Your task to perform on an android device: Search for Italian restaurants on Maps Image 0: 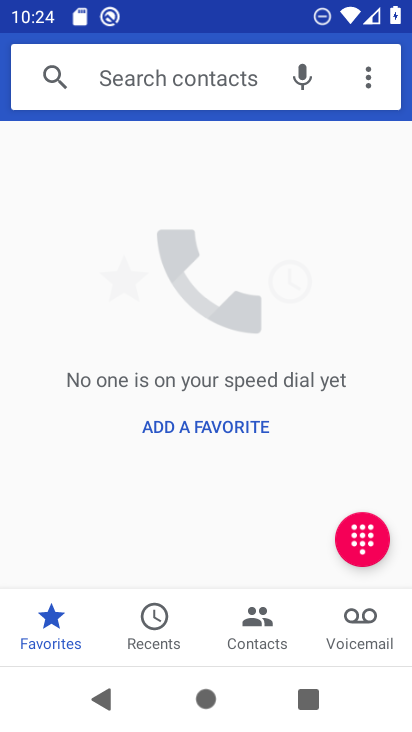
Step 0: drag from (325, 531) to (287, 80)
Your task to perform on an android device: Search for Italian restaurants on Maps Image 1: 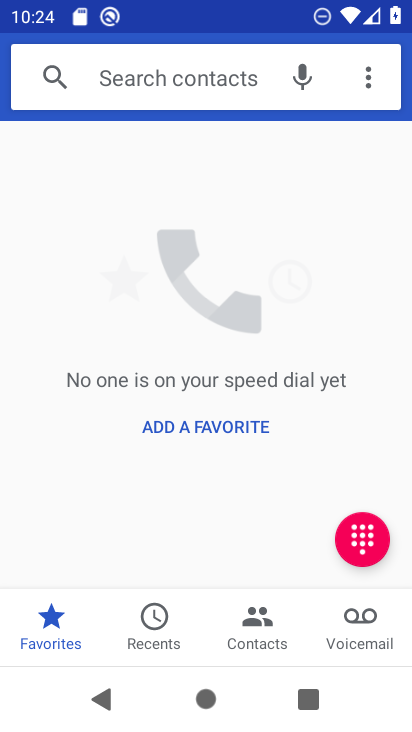
Step 1: press home button
Your task to perform on an android device: Search for Italian restaurants on Maps Image 2: 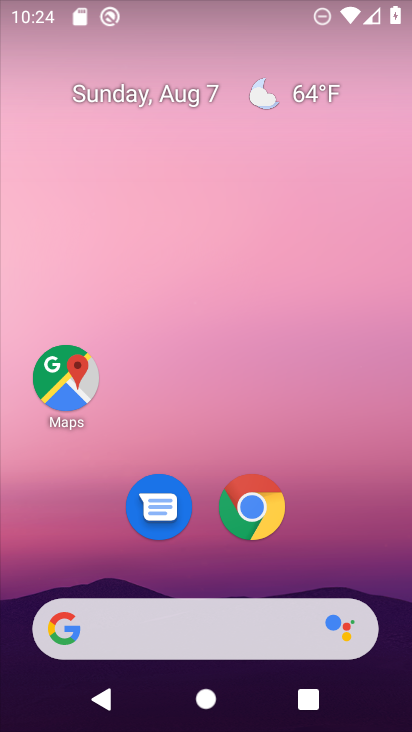
Step 2: drag from (357, 531) to (311, 29)
Your task to perform on an android device: Search for Italian restaurants on Maps Image 3: 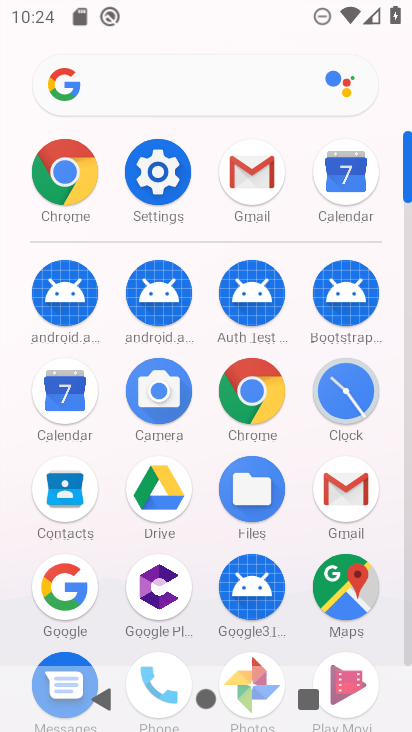
Step 3: click (344, 586)
Your task to perform on an android device: Search for Italian restaurants on Maps Image 4: 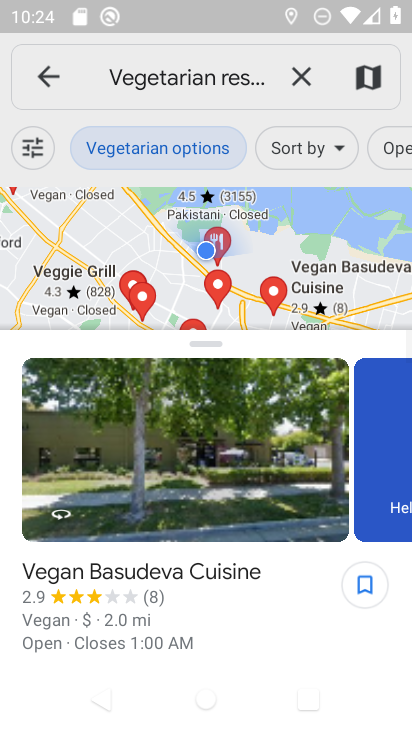
Step 4: drag from (378, 534) to (409, 514)
Your task to perform on an android device: Search for Italian restaurants on Maps Image 5: 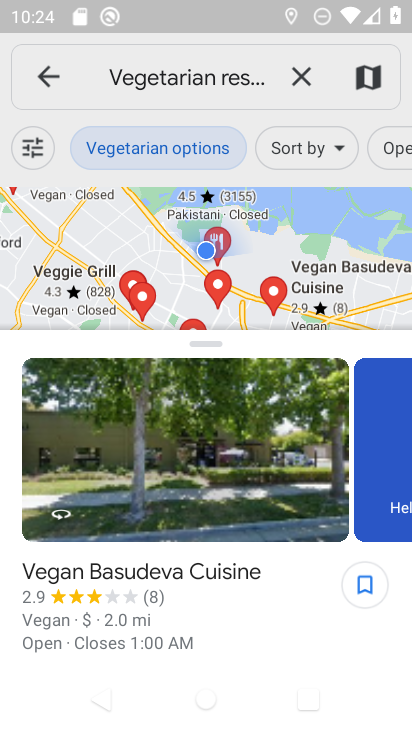
Step 5: drag from (409, 512) to (65, 455)
Your task to perform on an android device: Search for Italian restaurants on Maps Image 6: 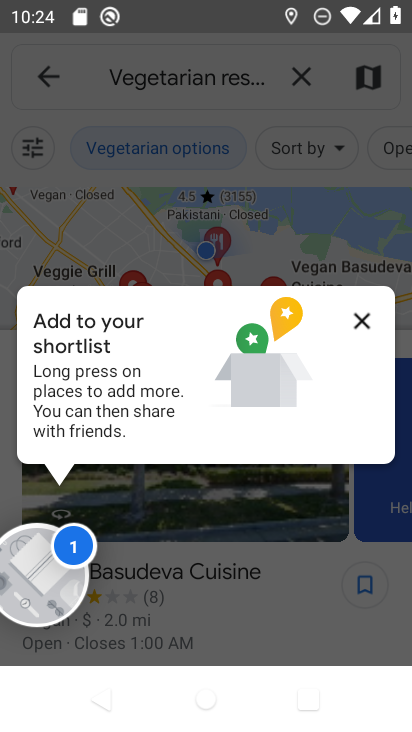
Step 6: click (360, 316)
Your task to perform on an android device: Search for Italian restaurants on Maps Image 7: 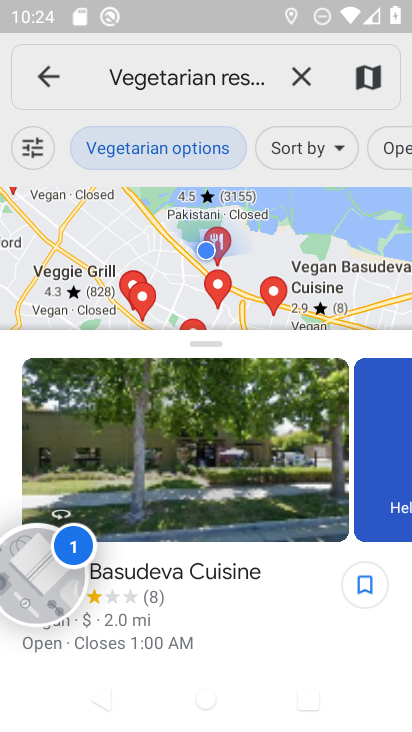
Step 7: click (163, 69)
Your task to perform on an android device: Search for Italian restaurants on Maps Image 8: 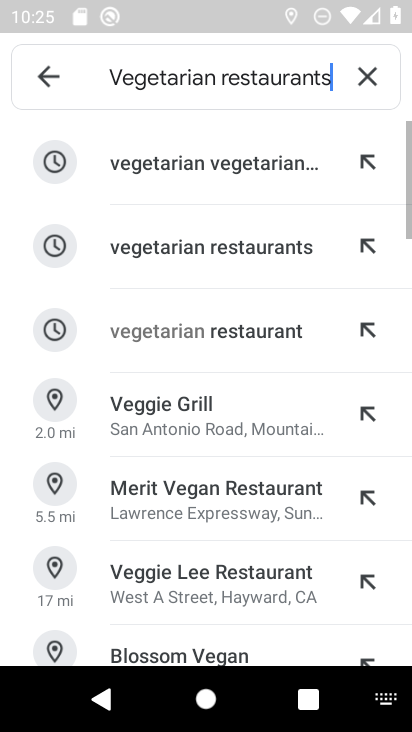
Step 8: click (369, 69)
Your task to perform on an android device: Search for Italian restaurants on Maps Image 9: 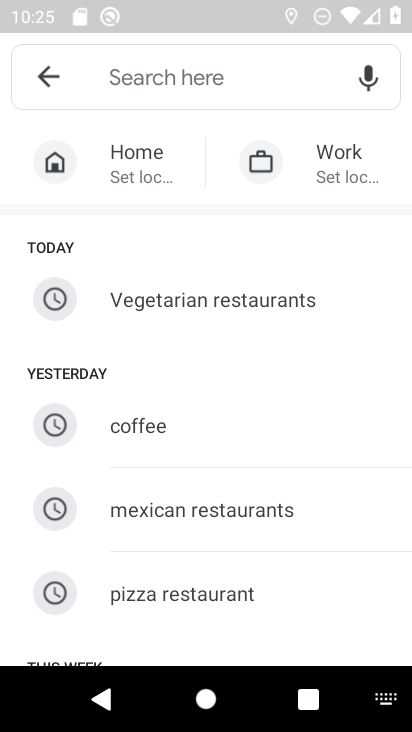
Step 9: type "Italian restaurants"
Your task to perform on an android device: Search for Italian restaurants on Maps Image 10: 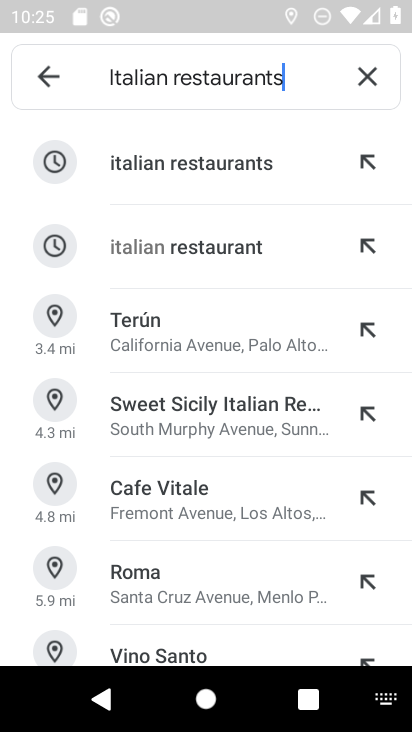
Step 10: click (267, 159)
Your task to perform on an android device: Search for Italian restaurants on Maps Image 11: 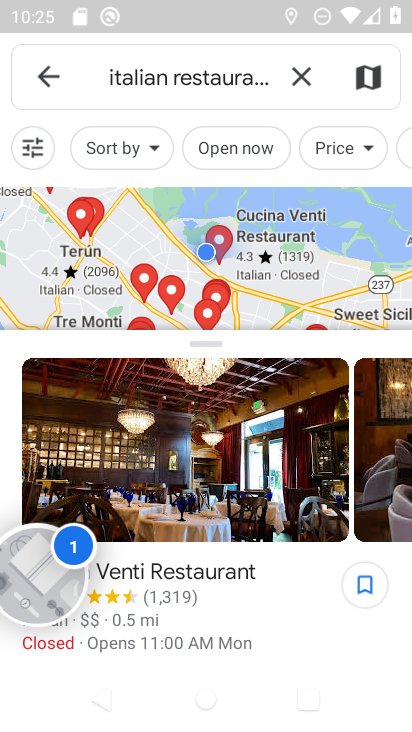
Step 11: task complete